Your task to perform on an android device: turn off picture-in-picture Image 0: 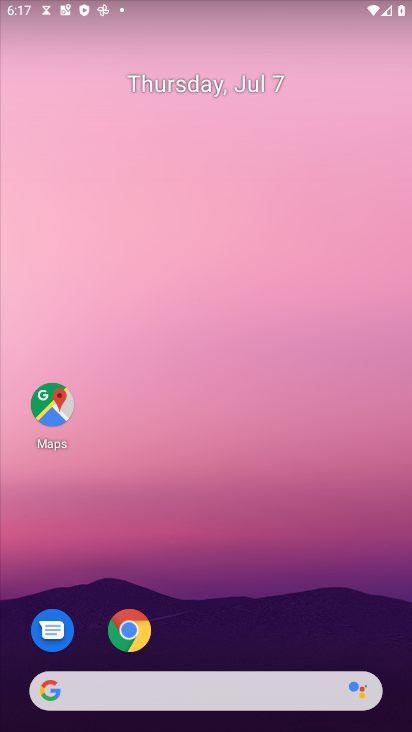
Step 0: press back button
Your task to perform on an android device: turn off picture-in-picture Image 1: 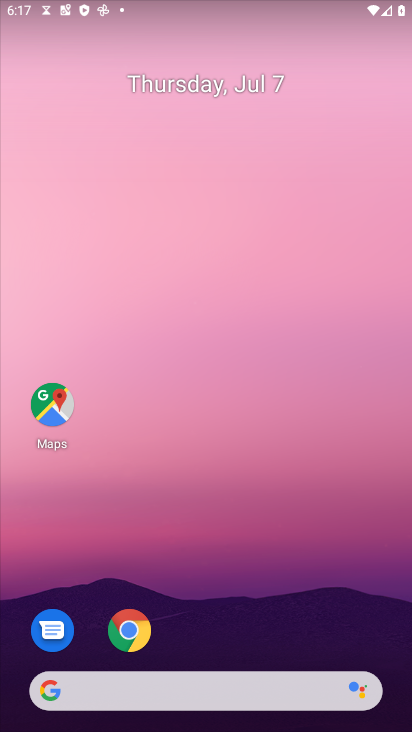
Step 1: press home button
Your task to perform on an android device: turn off picture-in-picture Image 2: 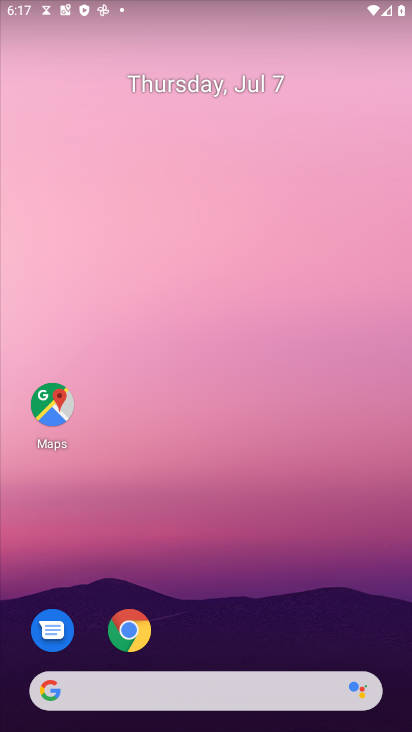
Step 2: drag from (228, 206) to (236, 106)
Your task to perform on an android device: turn off picture-in-picture Image 3: 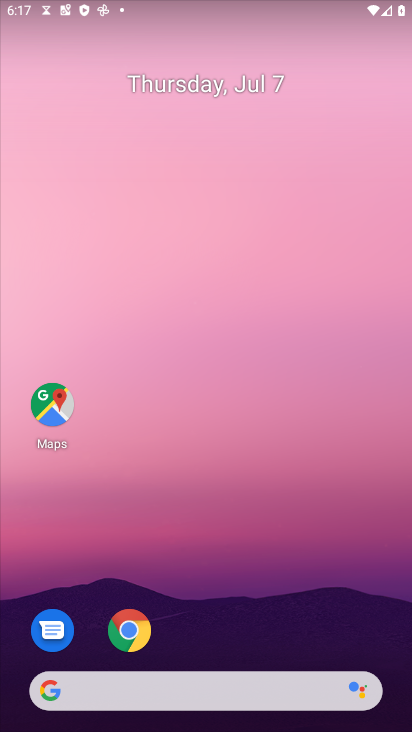
Step 3: drag from (187, 398) to (245, 81)
Your task to perform on an android device: turn off picture-in-picture Image 4: 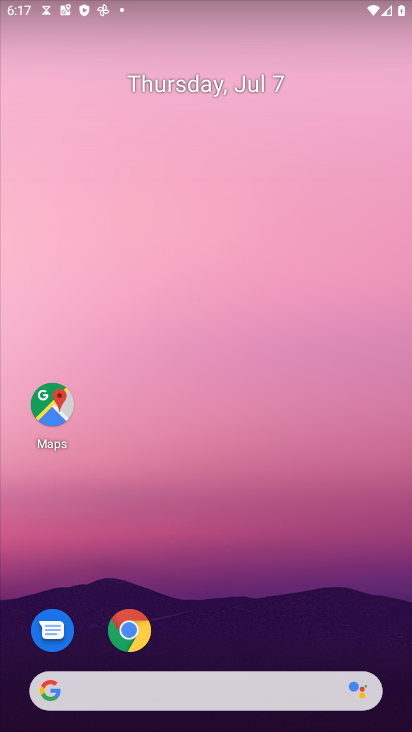
Step 4: drag from (211, 649) to (189, 18)
Your task to perform on an android device: turn off picture-in-picture Image 5: 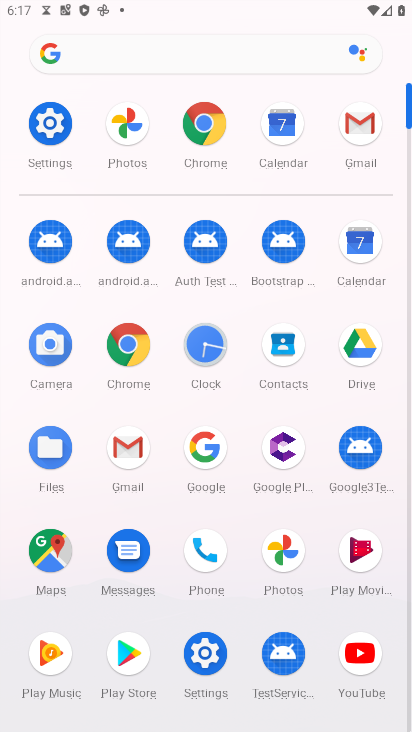
Step 5: click (46, 135)
Your task to perform on an android device: turn off picture-in-picture Image 6: 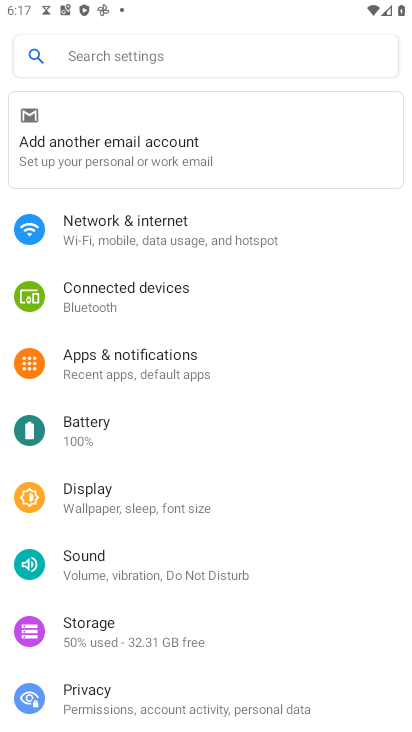
Step 6: click (129, 359)
Your task to perform on an android device: turn off picture-in-picture Image 7: 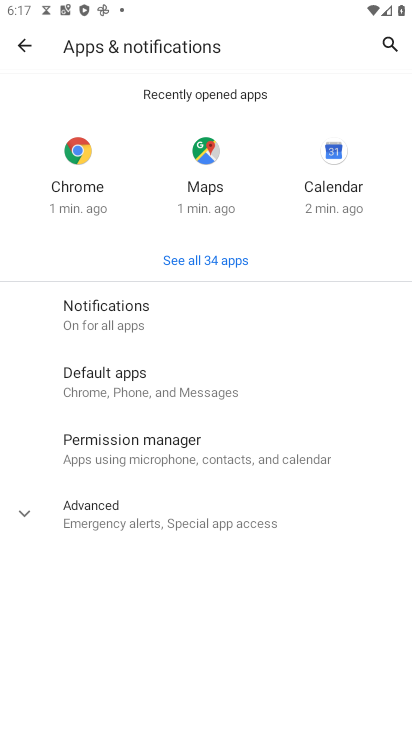
Step 7: click (123, 514)
Your task to perform on an android device: turn off picture-in-picture Image 8: 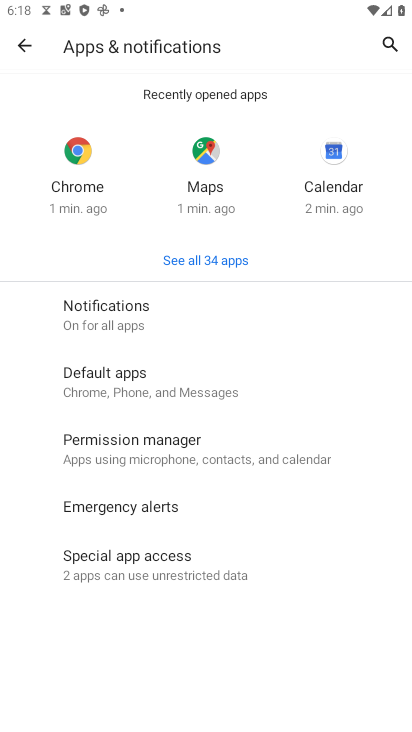
Step 8: click (163, 553)
Your task to perform on an android device: turn off picture-in-picture Image 9: 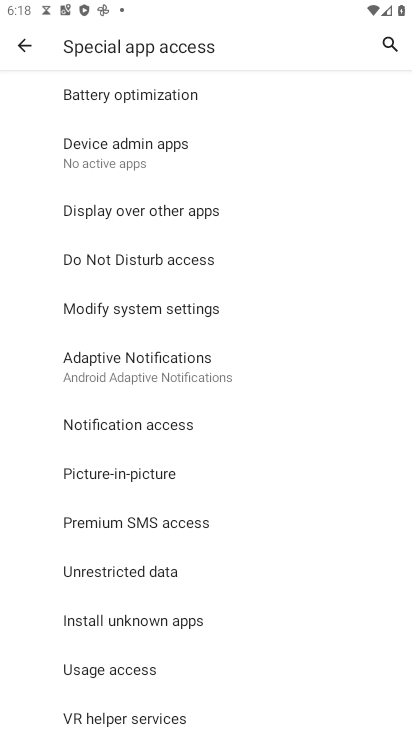
Step 9: click (132, 475)
Your task to perform on an android device: turn off picture-in-picture Image 10: 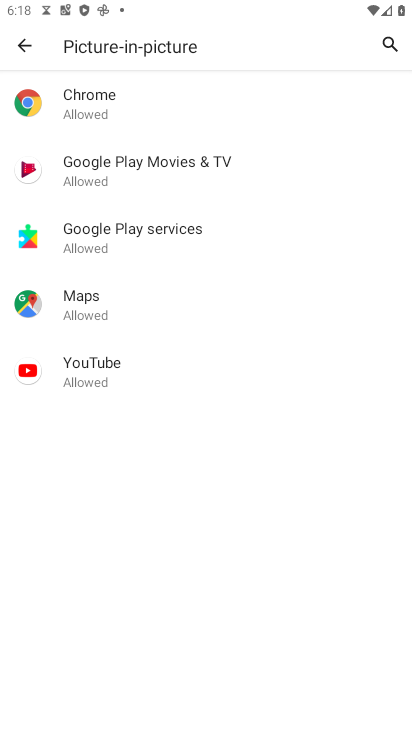
Step 10: click (90, 93)
Your task to perform on an android device: turn off picture-in-picture Image 11: 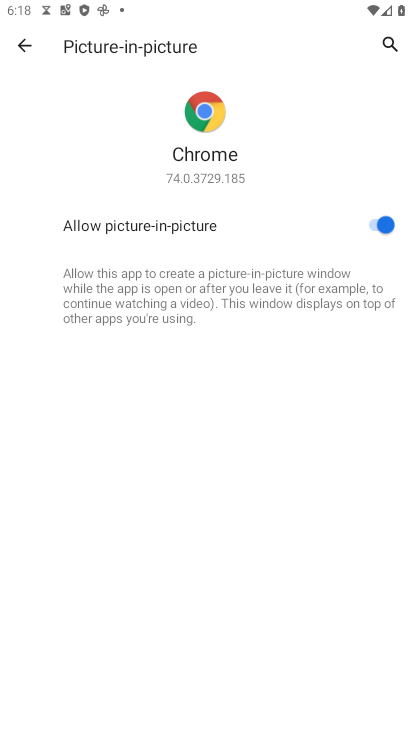
Step 11: click (378, 231)
Your task to perform on an android device: turn off picture-in-picture Image 12: 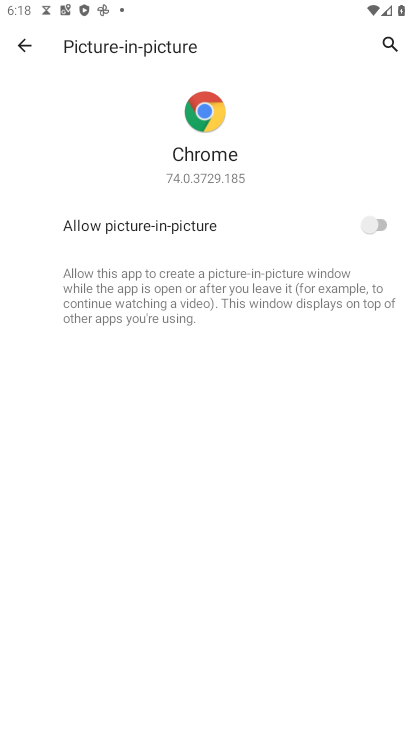
Step 12: task complete